Your task to perform on an android device: set default search engine in the chrome app Image 0: 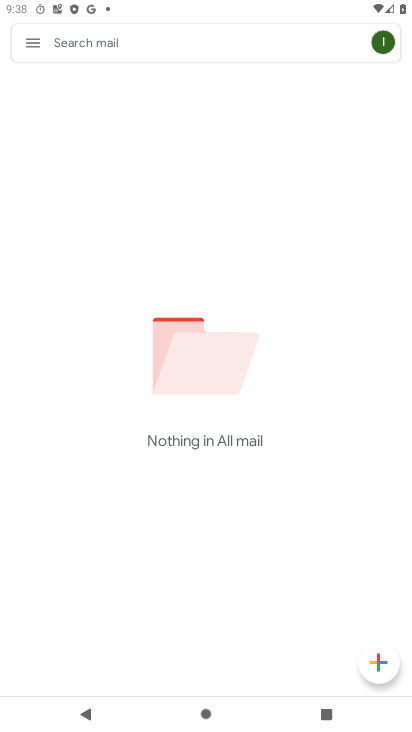
Step 0: press home button
Your task to perform on an android device: set default search engine in the chrome app Image 1: 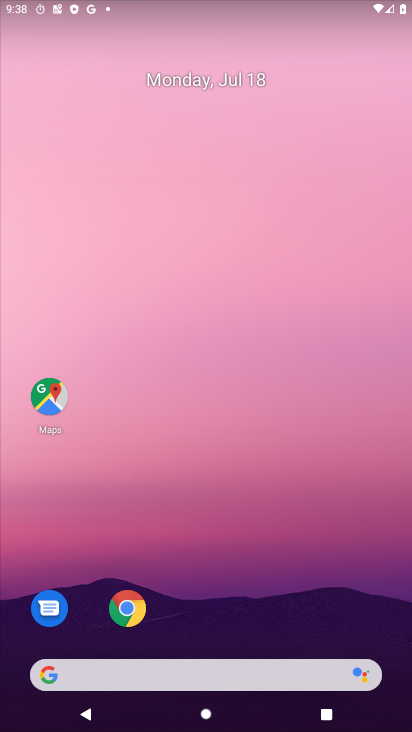
Step 1: click (123, 605)
Your task to perform on an android device: set default search engine in the chrome app Image 2: 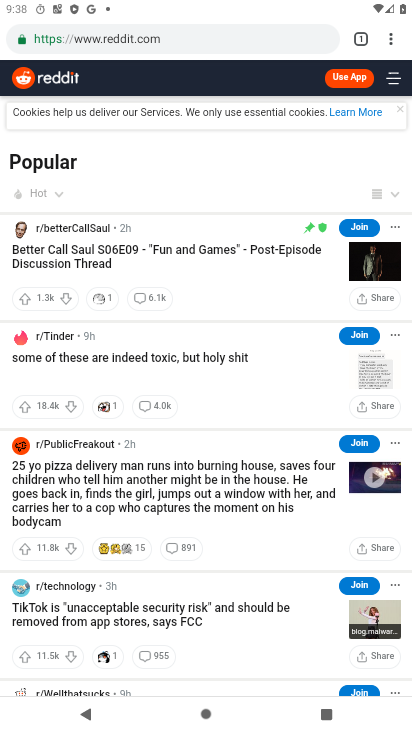
Step 2: click (388, 41)
Your task to perform on an android device: set default search engine in the chrome app Image 3: 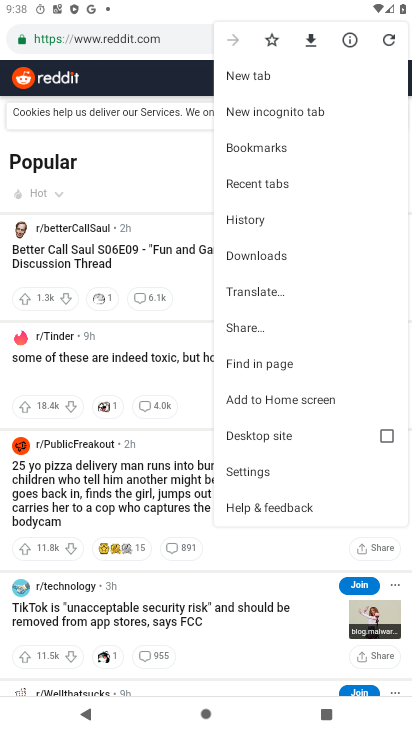
Step 3: click (259, 467)
Your task to perform on an android device: set default search engine in the chrome app Image 4: 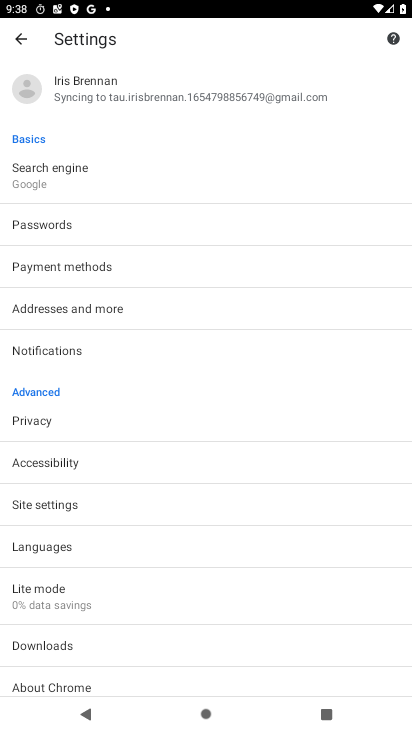
Step 4: click (65, 191)
Your task to perform on an android device: set default search engine in the chrome app Image 5: 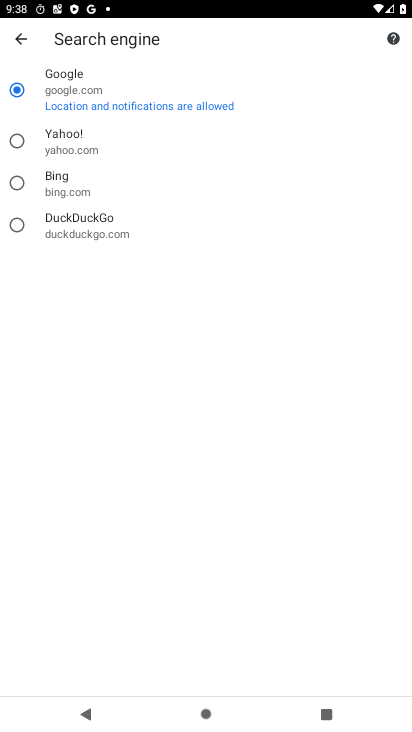
Step 5: click (18, 140)
Your task to perform on an android device: set default search engine in the chrome app Image 6: 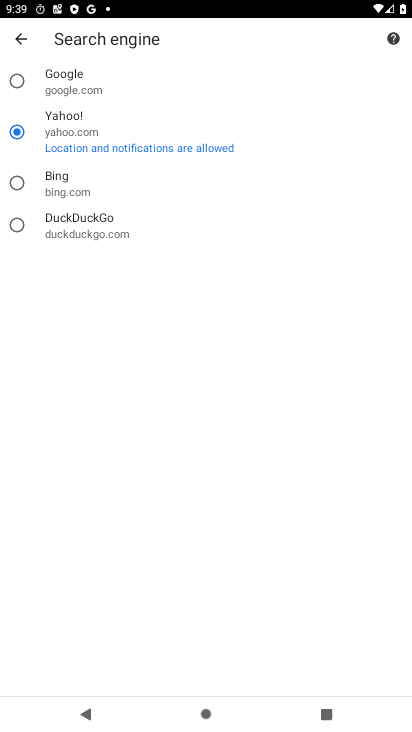
Step 6: task complete